Your task to perform on an android device: See recent photos Image 0: 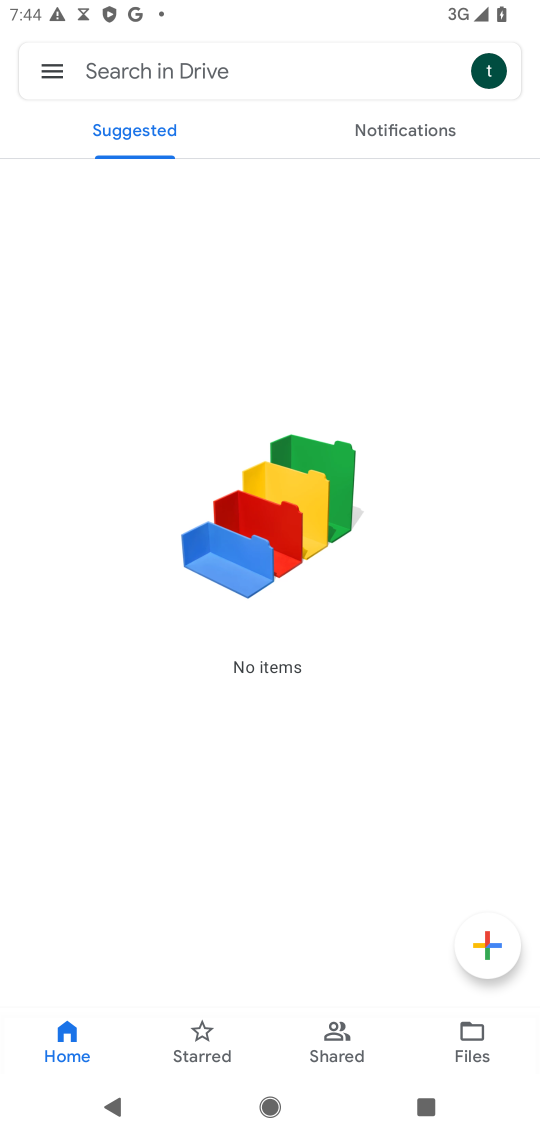
Step 0: press home button
Your task to perform on an android device: See recent photos Image 1: 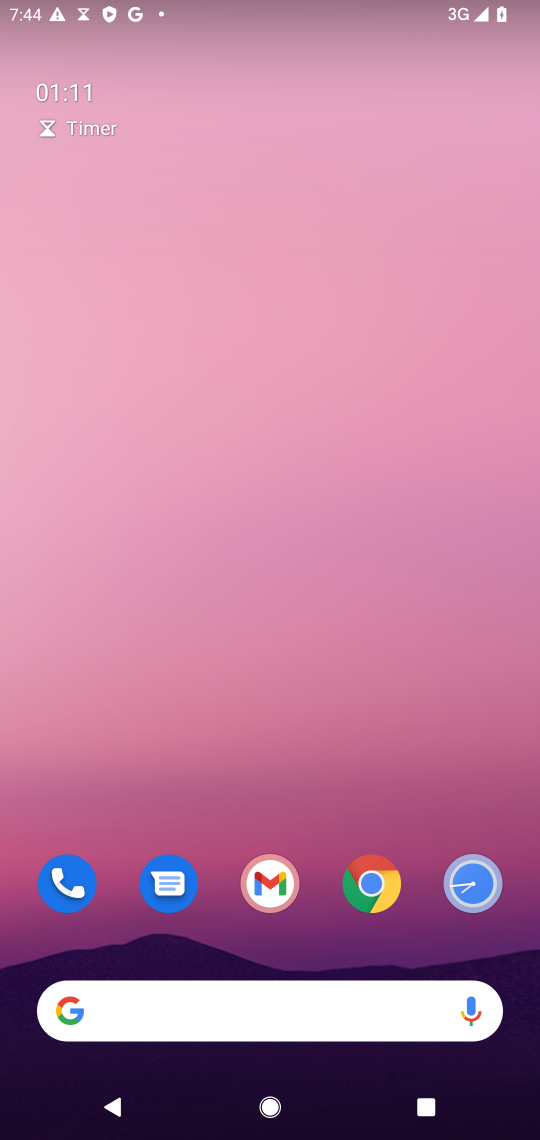
Step 1: drag from (242, 1024) to (245, 126)
Your task to perform on an android device: See recent photos Image 2: 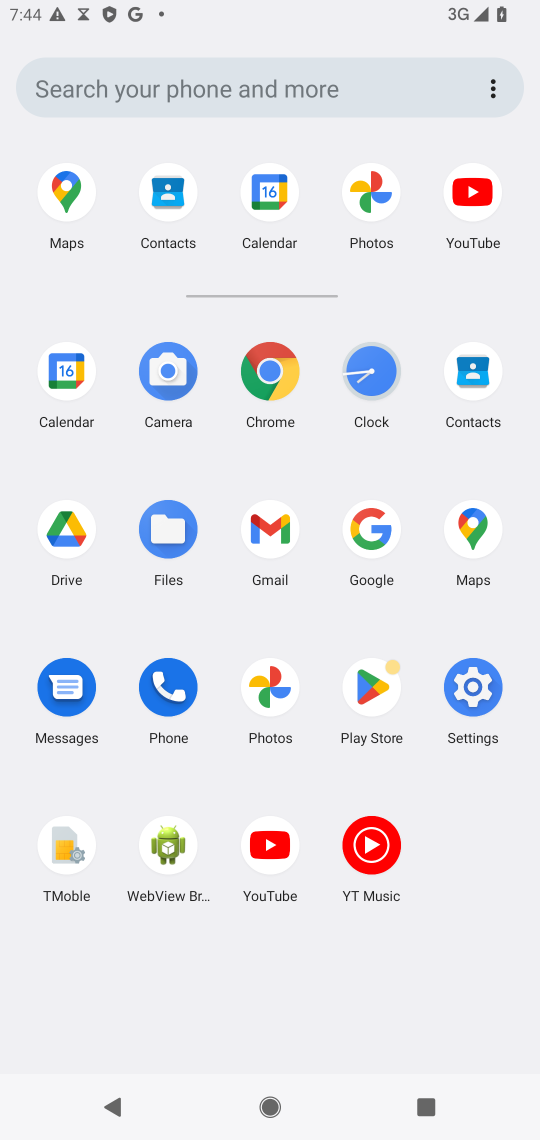
Step 2: click (272, 691)
Your task to perform on an android device: See recent photos Image 3: 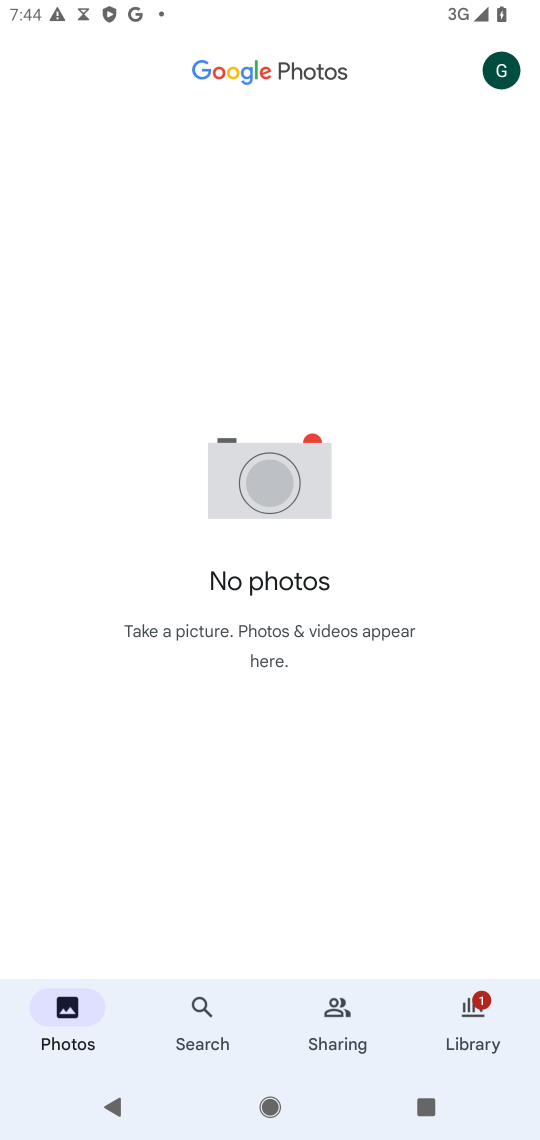
Step 3: click (205, 1003)
Your task to perform on an android device: See recent photos Image 4: 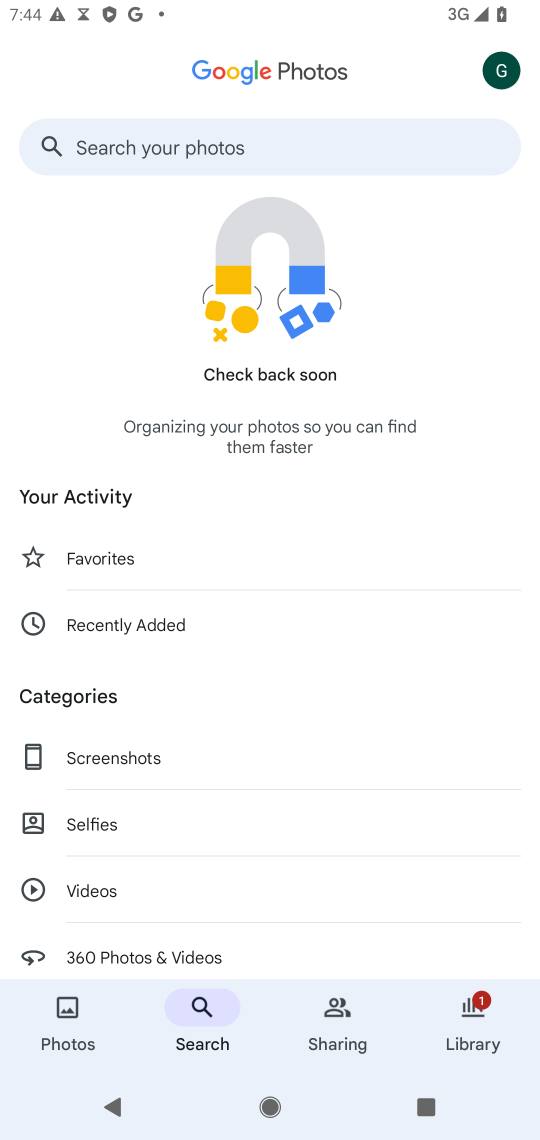
Step 4: drag from (191, 923) to (302, 709)
Your task to perform on an android device: See recent photos Image 5: 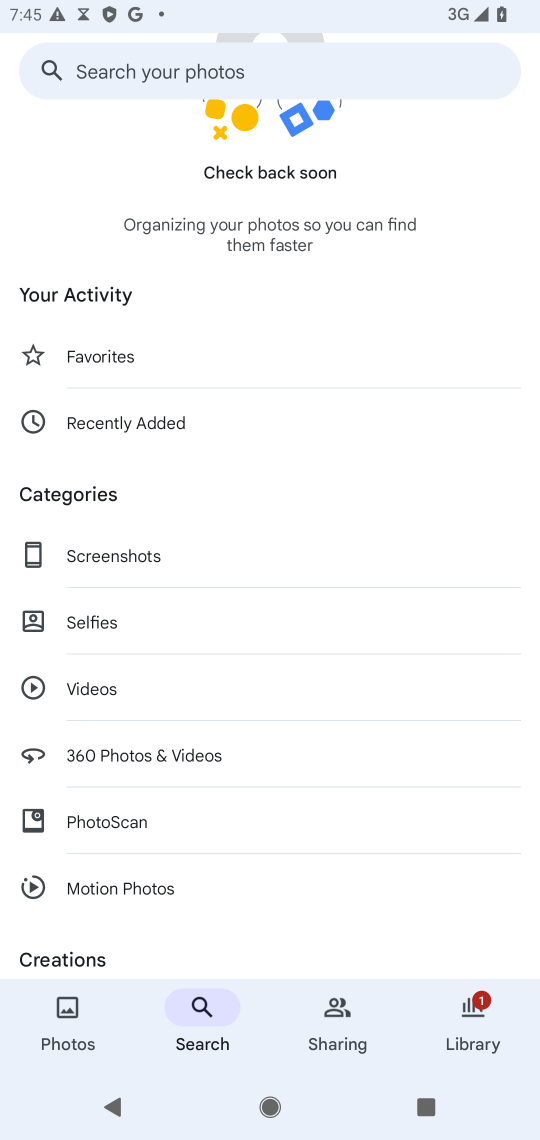
Step 5: drag from (333, 887) to (352, 603)
Your task to perform on an android device: See recent photos Image 6: 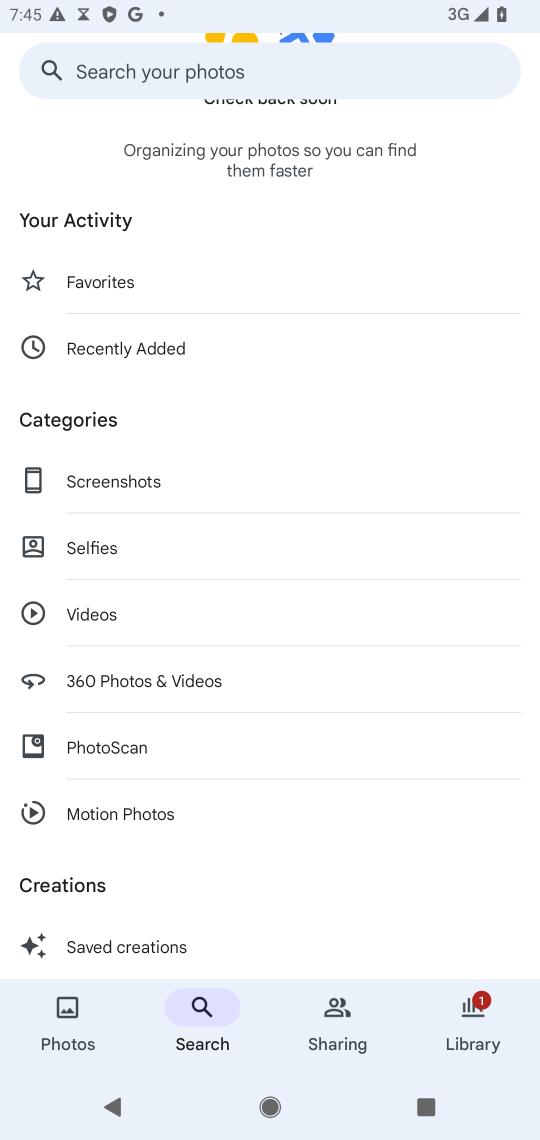
Step 6: drag from (185, 380) to (141, 772)
Your task to perform on an android device: See recent photos Image 7: 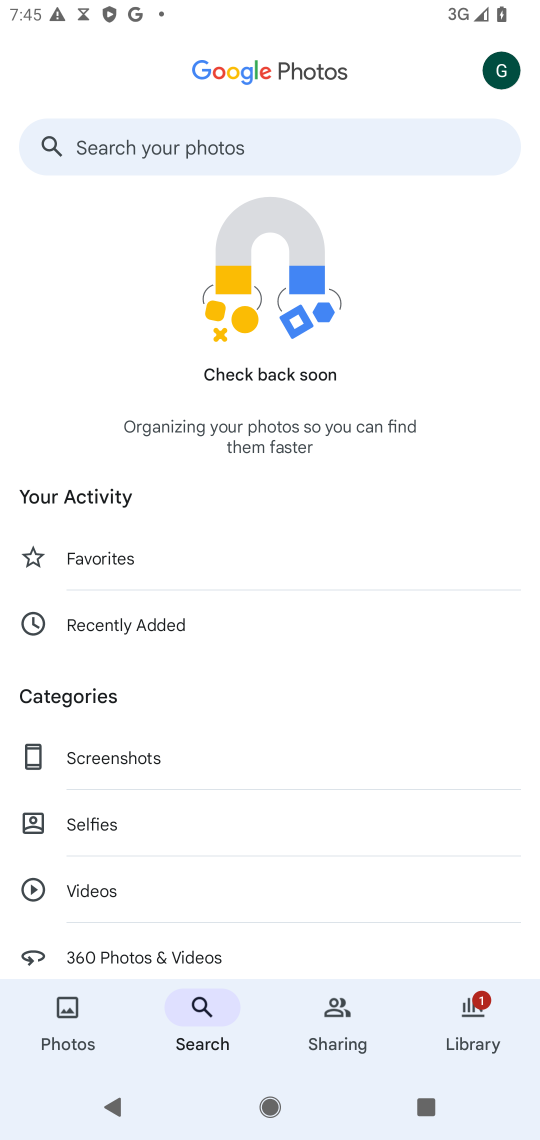
Step 7: click (287, 171)
Your task to perform on an android device: See recent photos Image 8: 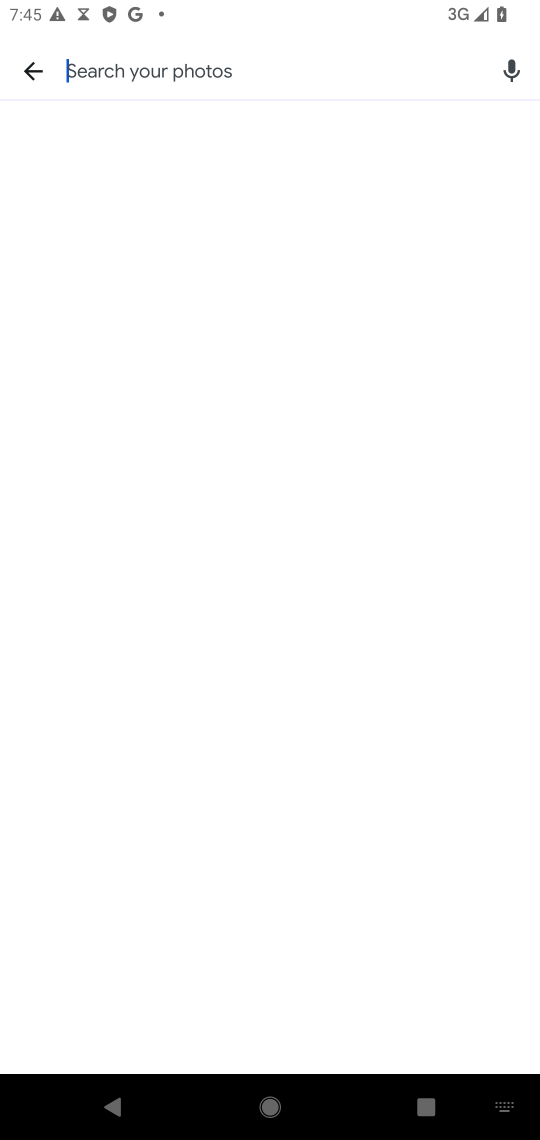
Step 8: task complete